Your task to perform on an android device: turn on translation in the chrome app Image 0: 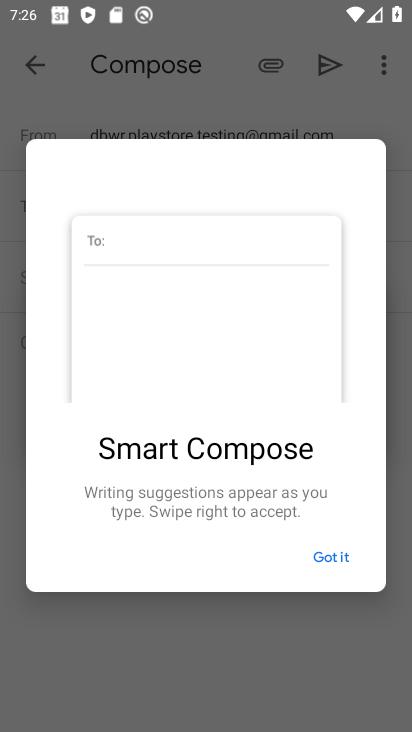
Step 0: press home button
Your task to perform on an android device: turn on translation in the chrome app Image 1: 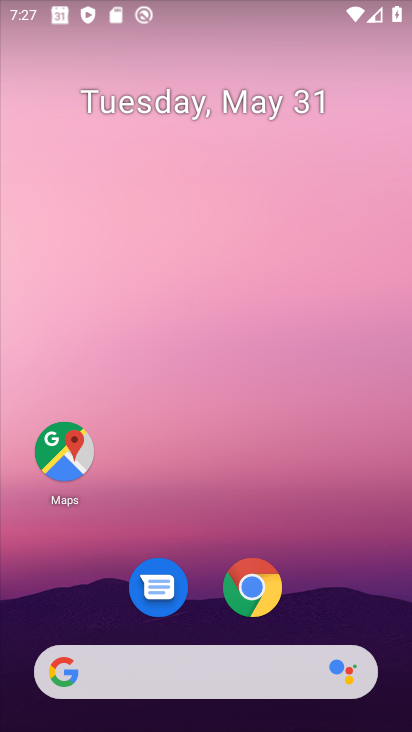
Step 1: drag from (196, 595) to (192, 117)
Your task to perform on an android device: turn on translation in the chrome app Image 2: 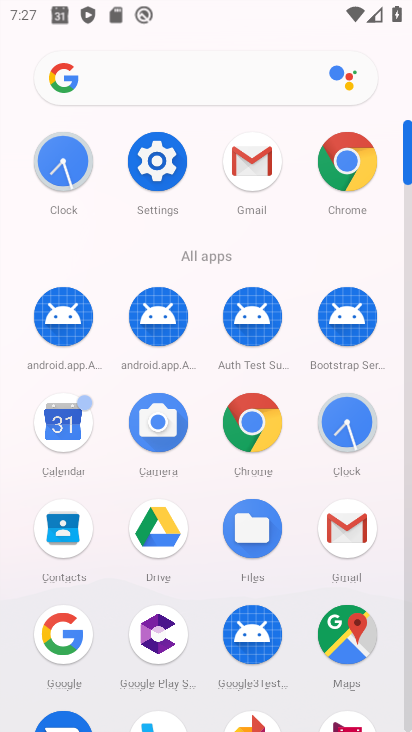
Step 2: click (339, 179)
Your task to perform on an android device: turn on translation in the chrome app Image 3: 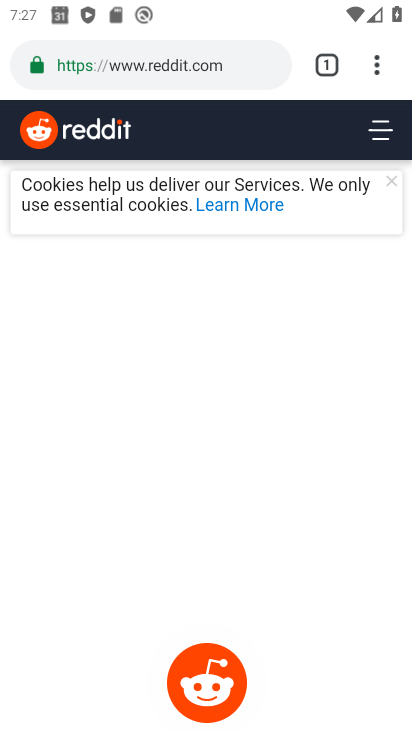
Step 3: click (377, 70)
Your task to perform on an android device: turn on translation in the chrome app Image 4: 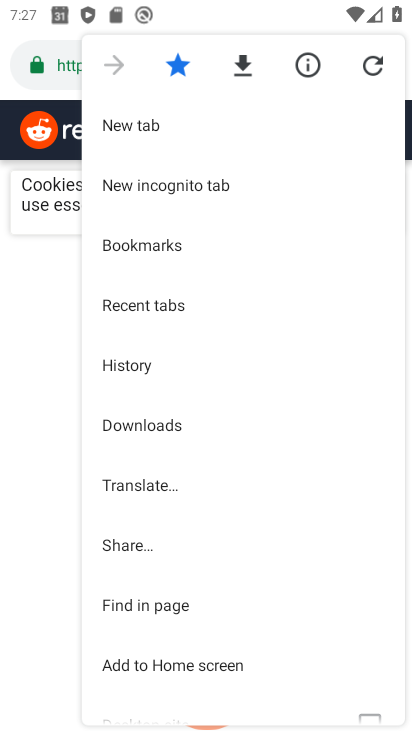
Step 4: drag from (159, 637) to (185, 297)
Your task to perform on an android device: turn on translation in the chrome app Image 5: 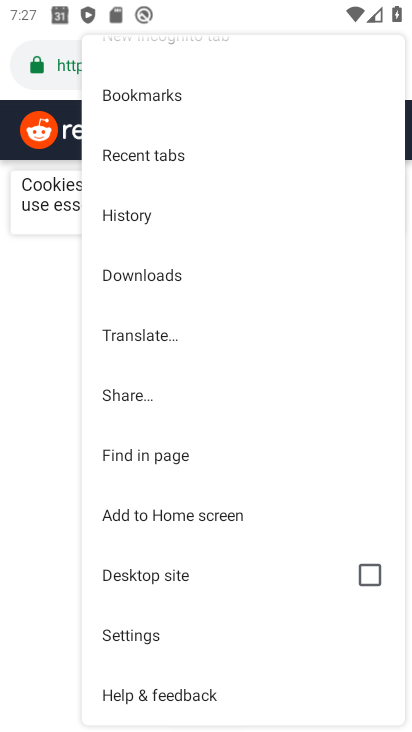
Step 5: click (127, 641)
Your task to perform on an android device: turn on translation in the chrome app Image 6: 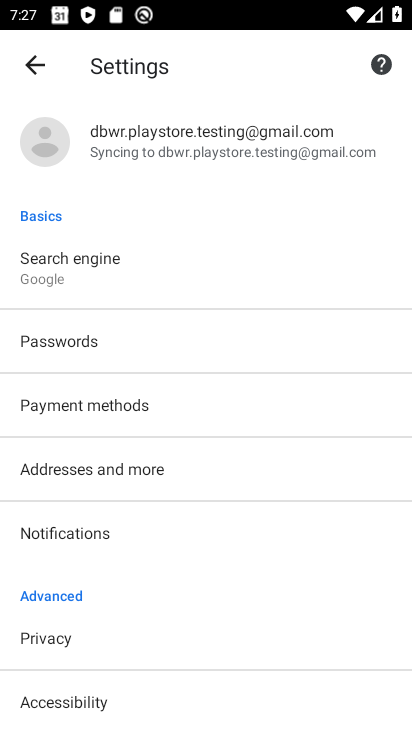
Step 6: drag from (94, 690) to (77, 456)
Your task to perform on an android device: turn on translation in the chrome app Image 7: 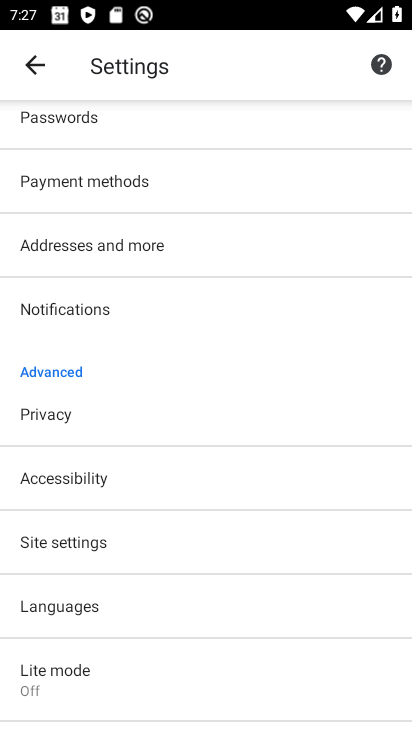
Step 7: click (64, 606)
Your task to perform on an android device: turn on translation in the chrome app Image 8: 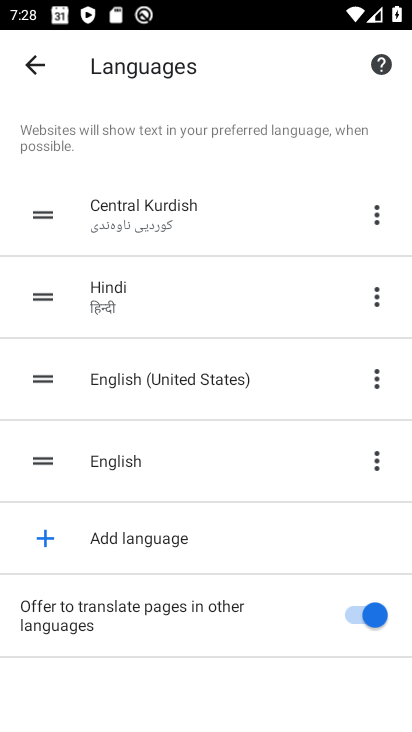
Step 8: task complete